Your task to perform on an android device: turn on wifi Image 0: 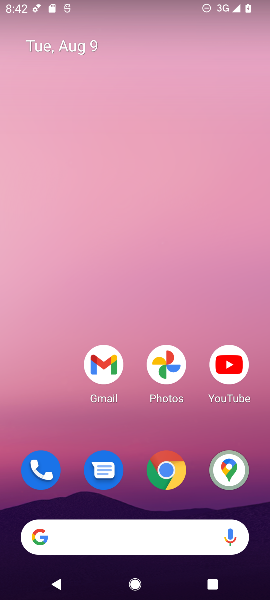
Step 0: drag from (110, 541) to (154, 121)
Your task to perform on an android device: turn on wifi Image 1: 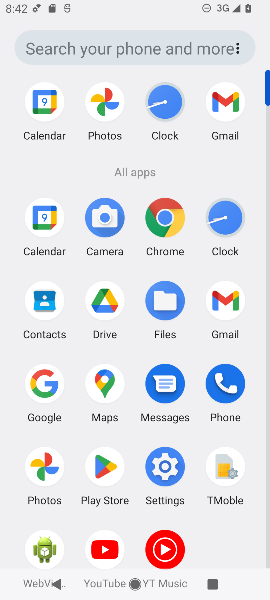
Step 1: click (165, 466)
Your task to perform on an android device: turn on wifi Image 2: 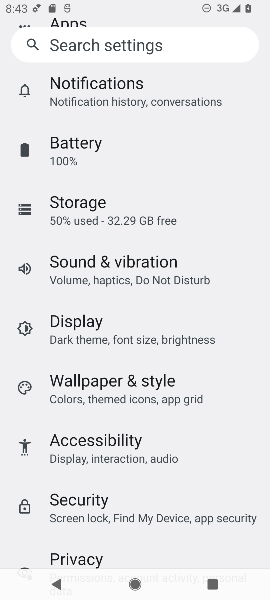
Step 2: drag from (133, 188) to (132, 341)
Your task to perform on an android device: turn on wifi Image 3: 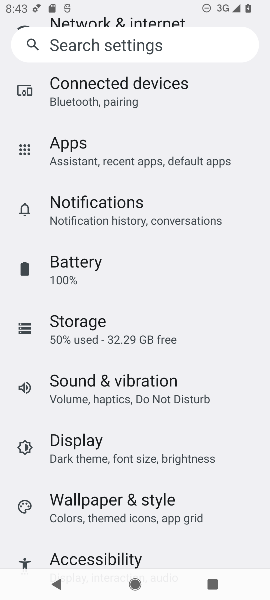
Step 3: drag from (127, 98) to (126, 347)
Your task to perform on an android device: turn on wifi Image 4: 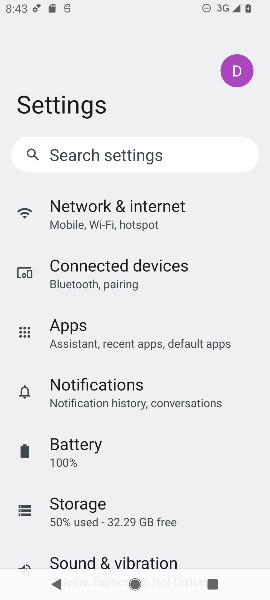
Step 4: click (130, 209)
Your task to perform on an android device: turn on wifi Image 5: 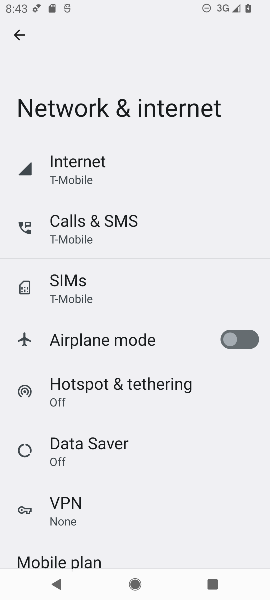
Step 5: click (85, 177)
Your task to perform on an android device: turn on wifi Image 6: 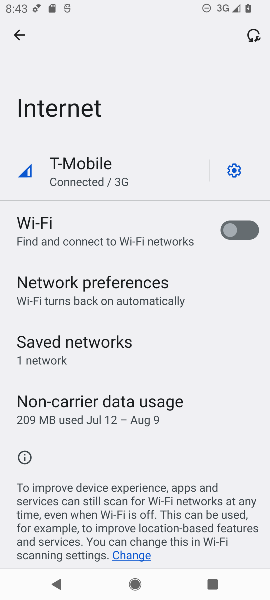
Step 6: click (237, 231)
Your task to perform on an android device: turn on wifi Image 7: 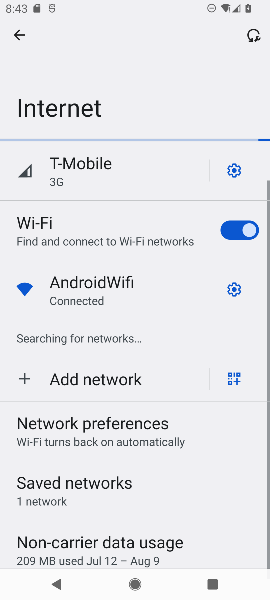
Step 7: task complete